Your task to perform on an android device: open sync settings in chrome Image 0: 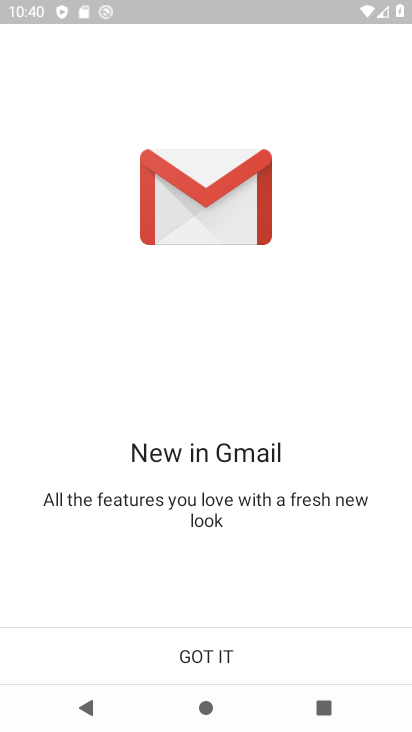
Step 0: click (265, 651)
Your task to perform on an android device: open sync settings in chrome Image 1: 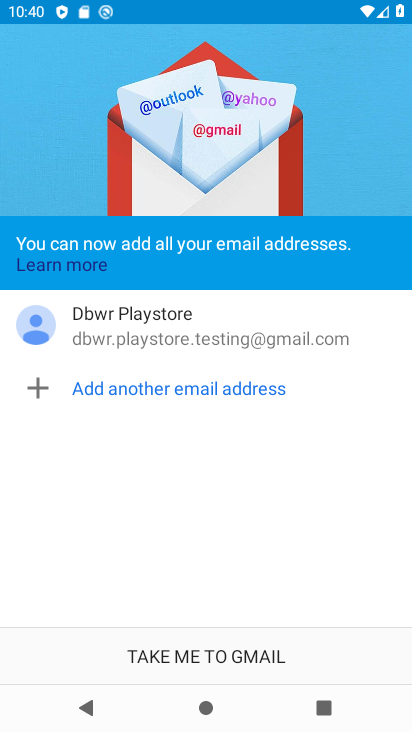
Step 1: press home button
Your task to perform on an android device: open sync settings in chrome Image 2: 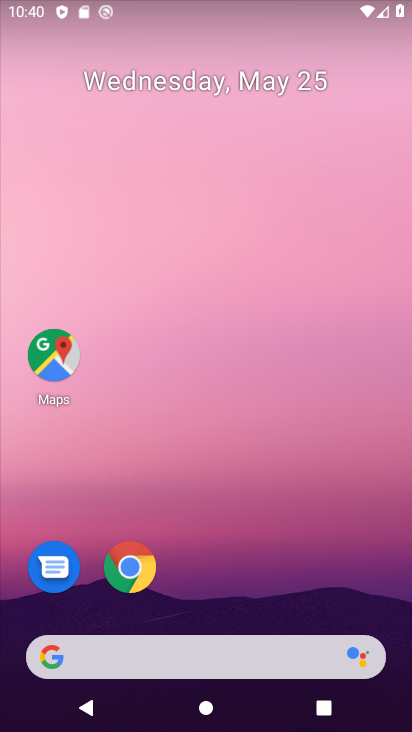
Step 2: click (136, 561)
Your task to perform on an android device: open sync settings in chrome Image 3: 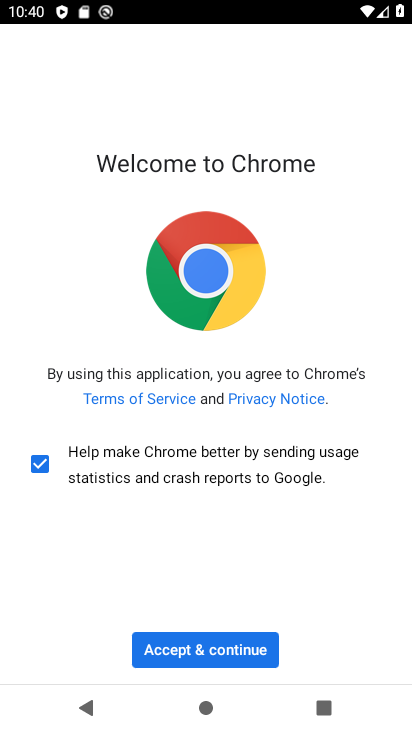
Step 3: click (194, 652)
Your task to perform on an android device: open sync settings in chrome Image 4: 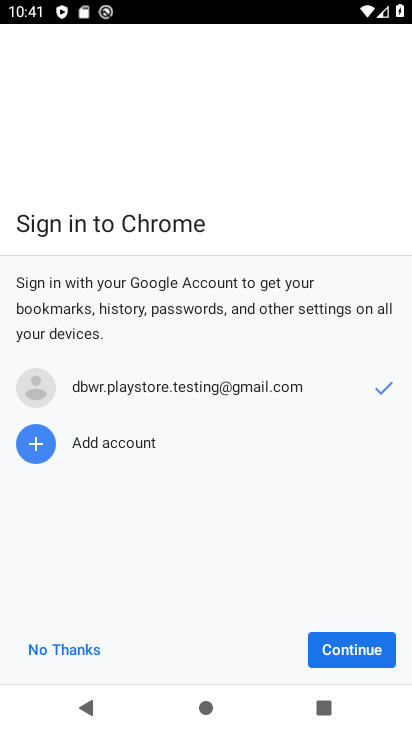
Step 4: click (345, 653)
Your task to perform on an android device: open sync settings in chrome Image 5: 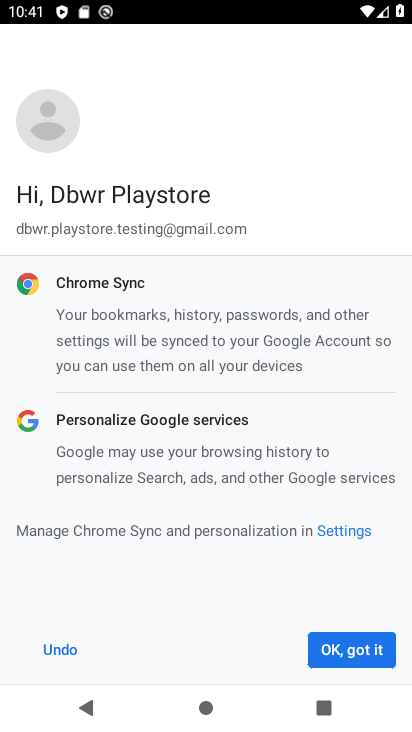
Step 5: click (345, 653)
Your task to perform on an android device: open sync settings in chrome Image 6: 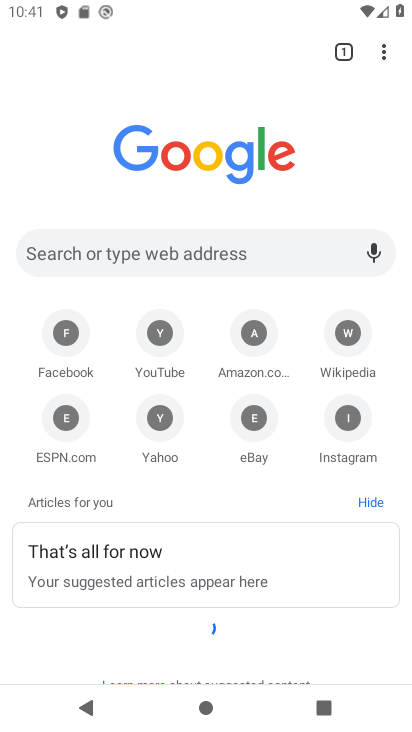
Step 6: click (386, 45)
Your task to perform on an android device: open sync settings in chrome Image 7: 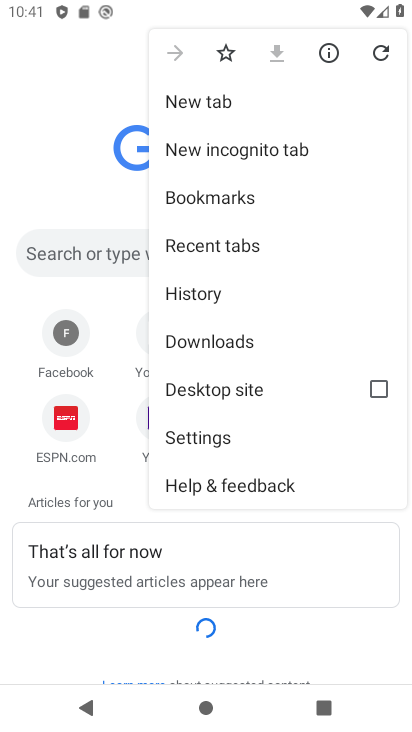
Step 7: click (243, 433)
Your task to perform on an android device: open sync settings in chrome Image 8: 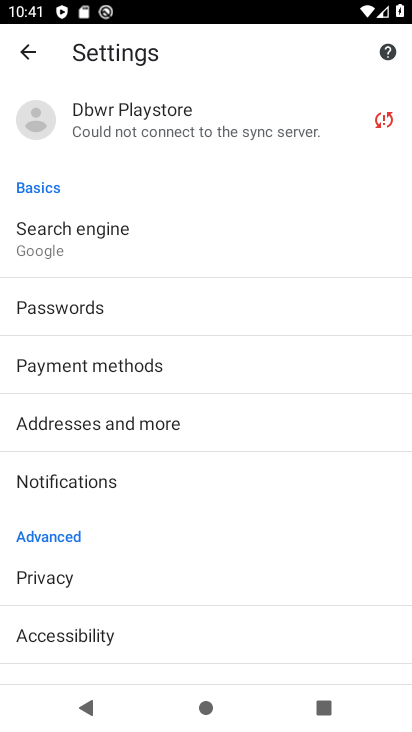
Step 8: click (133, 132)
Your task to perform on an android device: open sync settings in chrome Image 9: 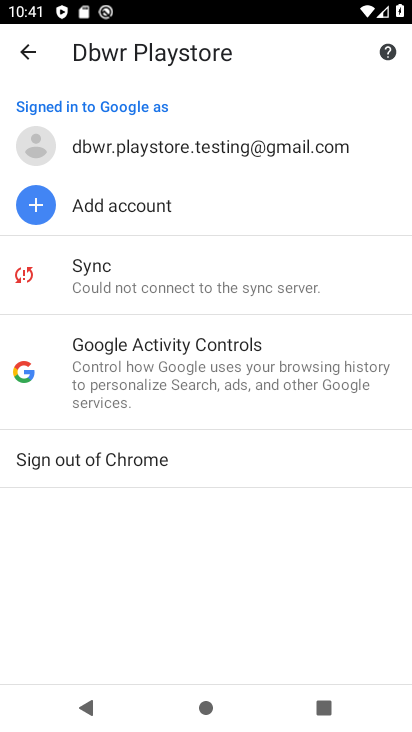
Step 9: click (141, 273)
Your task to perform on an android device: open sync settings in chrome Image 10: 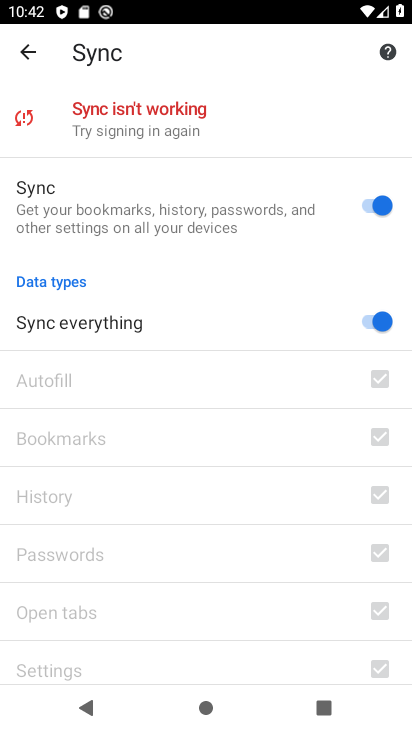
Step 10: task complete